Your task to perform on an android device: Open eBay Image 0: 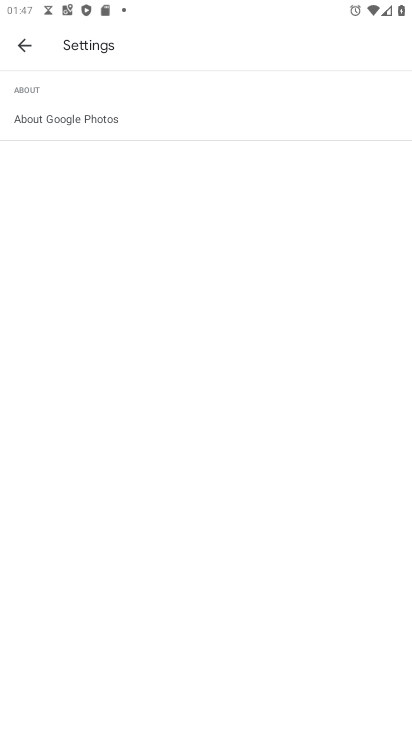
Step 0: press home button
Your task to perform on an android device: Open eBay Image 1: 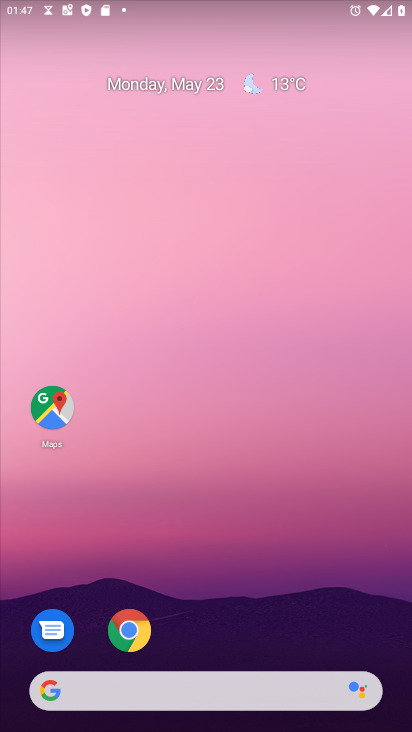
Step 1: click (139, 631)
Your task to perform on an android device: Open eBay Image 2: 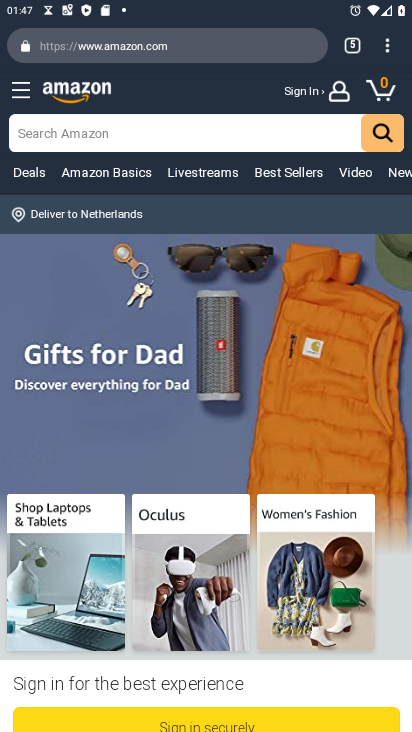
Step 2: click (343, 50)
Your task to perform on an android device: Open eBay Image 3: 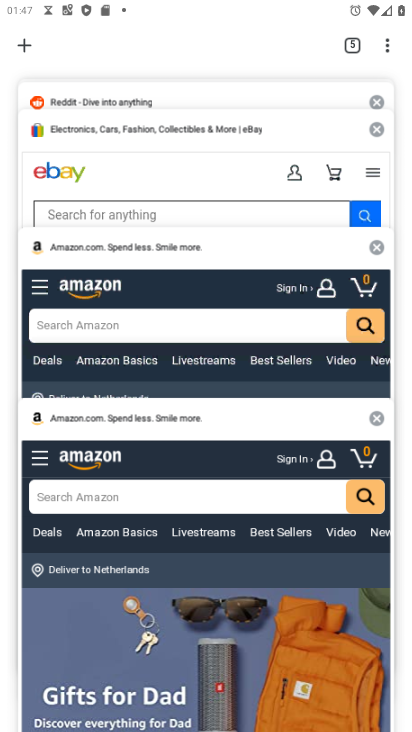
Step 3: click (87, 179)
Your task to perform on an android device: Open eBay Image 4: 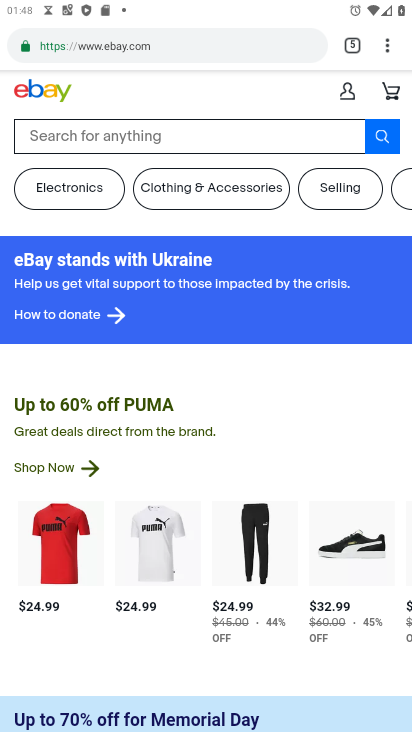
Step 4: task complete